Your task to perform on an android device: turn on sleep mode Image 0: 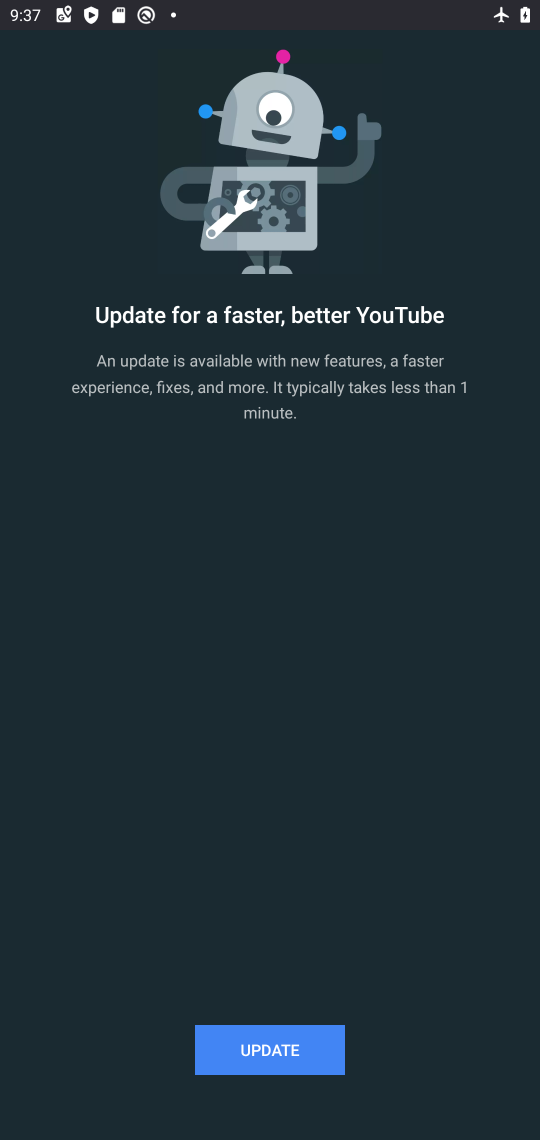
Step 0: press back button
Your task to perform on an android device: turn on sleep mode Image 1: 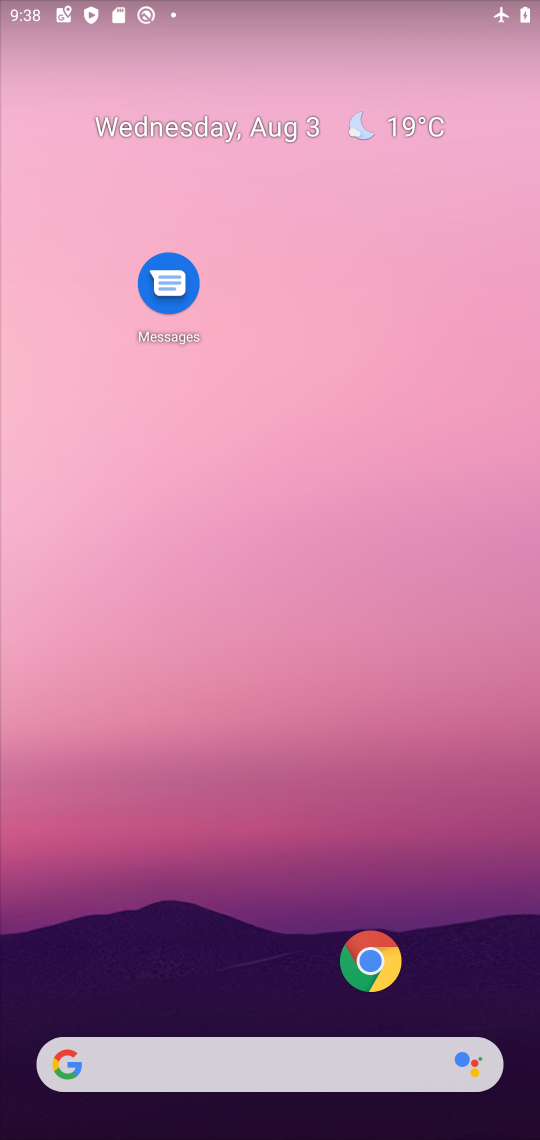
Step 1: drag from (224, 879) to (108, 0)
Your task to perform on an android device: turn on sleep mode Image 2: 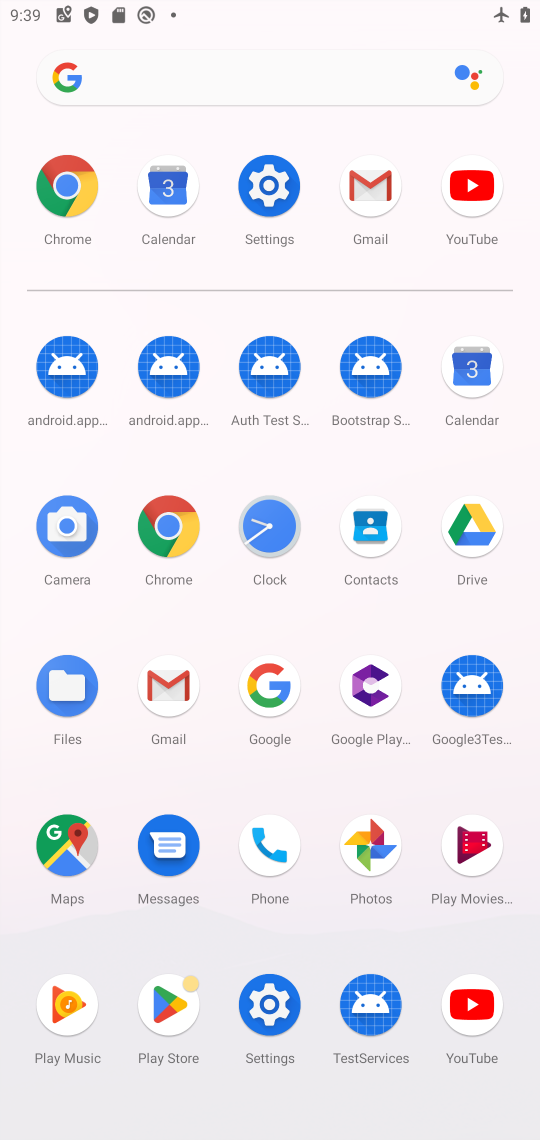
Step 2: click (285, 1004)
Your task to perform on an android device: turn on sleep mode Image 3: 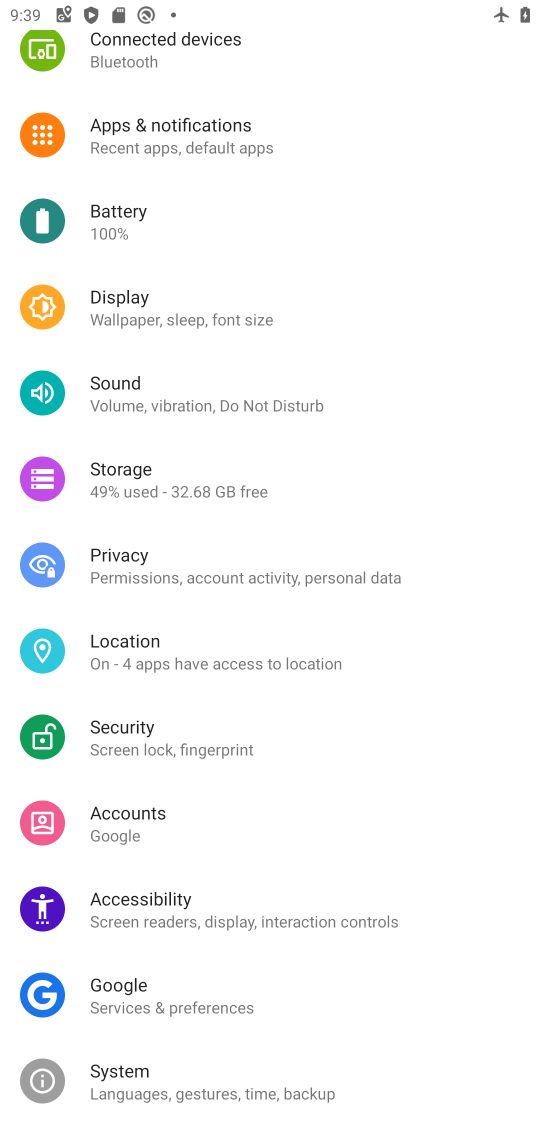
Step 3: task complete